Your task to perform on an android device: Set the phone to "Do not disturb". Image 0: 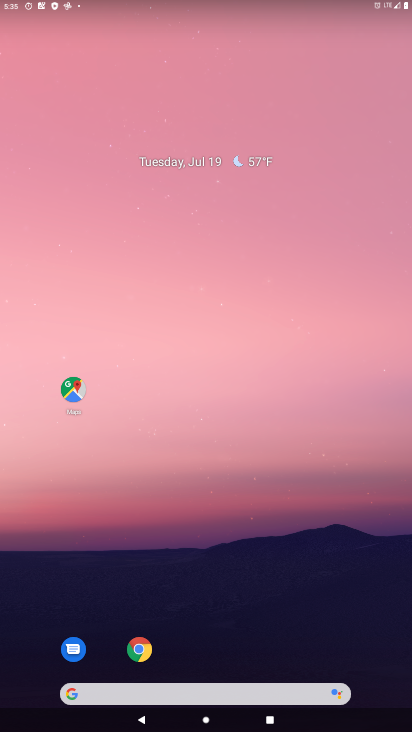
Step 0: drag from (191, 560) to (187, 244)
Your task to perform on an android device: Set the phone to "Do not disturb". Image 1: 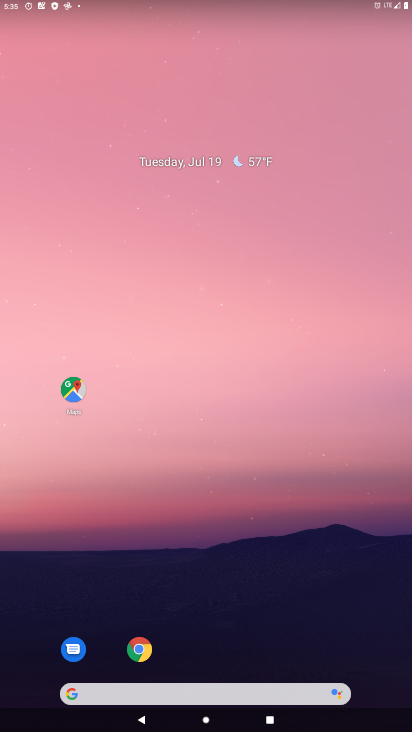
Step 1: drag from (197, 524) to (197, 105)
Your task to perform on an android device: Set the phone to "Do not disturb". Image 2: 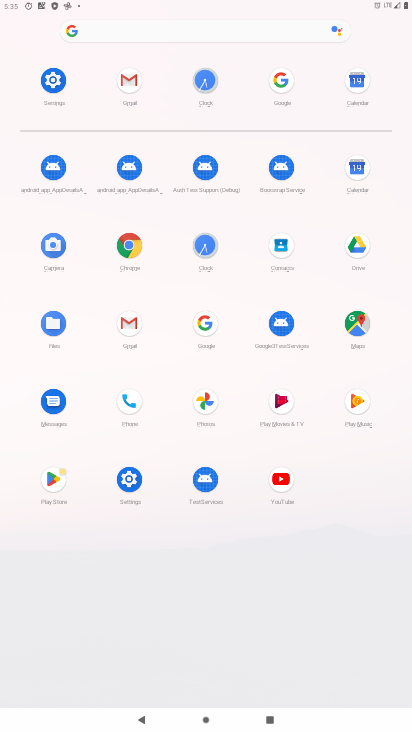
Step 2: click (47, 92)
Your task to perform on an android device: Set the phone to "Do not disturb". Image 3: 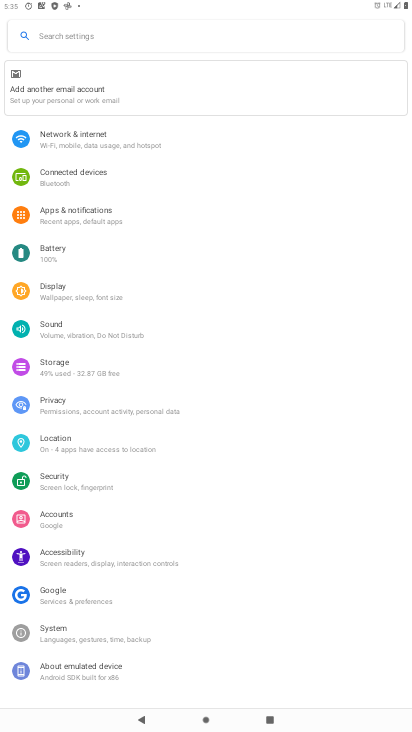
Step 3: click (57, 319)
Your task to perform on an android device: Set the phone to "Do not disturb". Image 4: 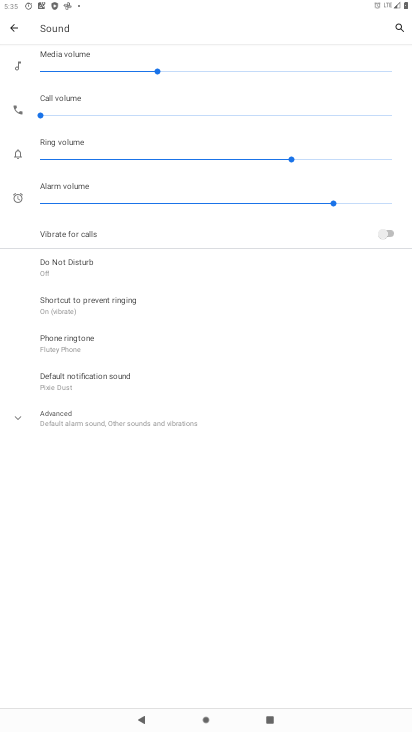
Step 4: click (70, 266)
Your task to perform on an android device: Set the phone to "Do not disturb". Image 5: 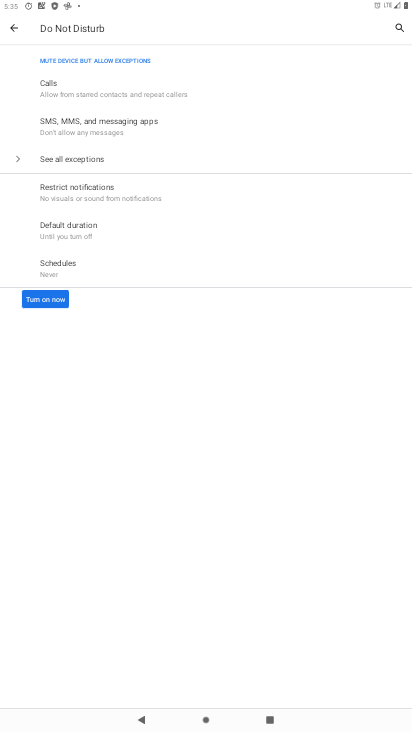
Step 5: click (38, 299)
Your task to perform on an android device: Set the phone to "Do not disturb". Image 6: 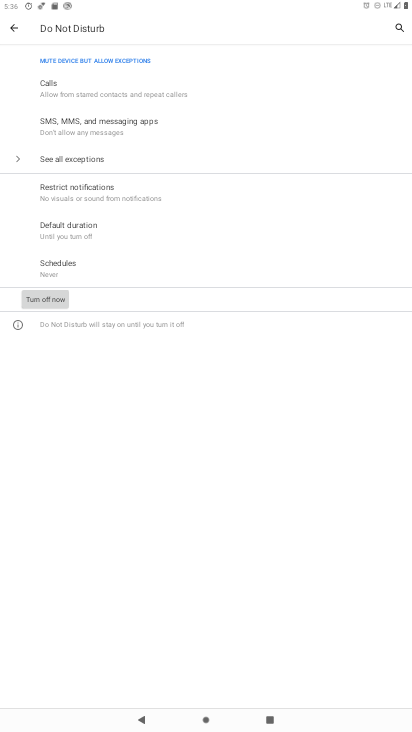
Step 6: task complete